Your task to perform on an android device: Open display settings Image 0: 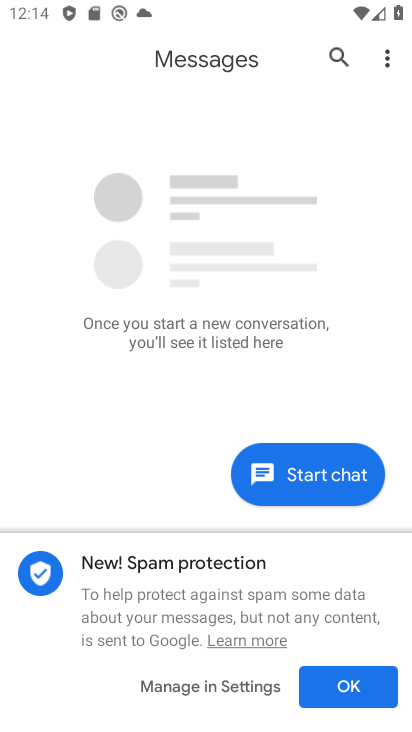
Step 0: press home button
Your task to perform on an android device: Open display settings Image 1: 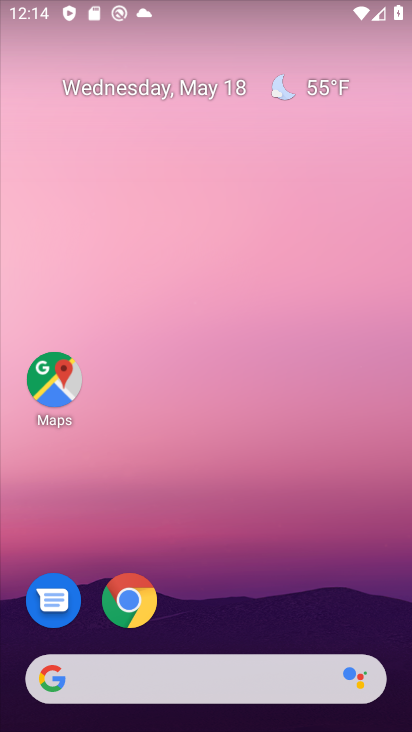
Step 1: drag from (177, 662) to (137, 116)
Your task to perform on an android device: Open display settings Image 2: 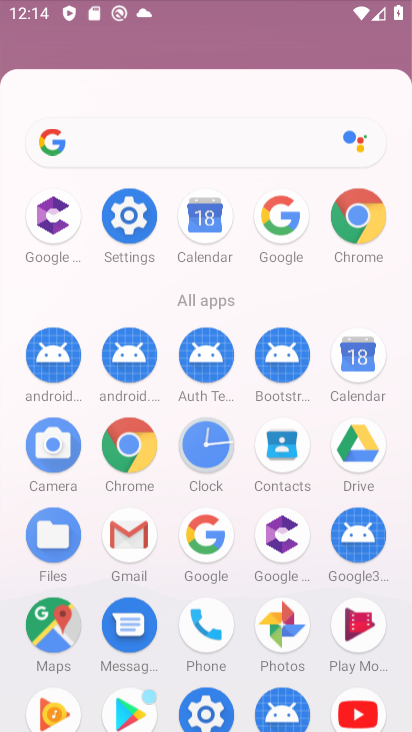
Step 2: click (137, 116)
Your task to perform on an android device: Open display settings Image 3: 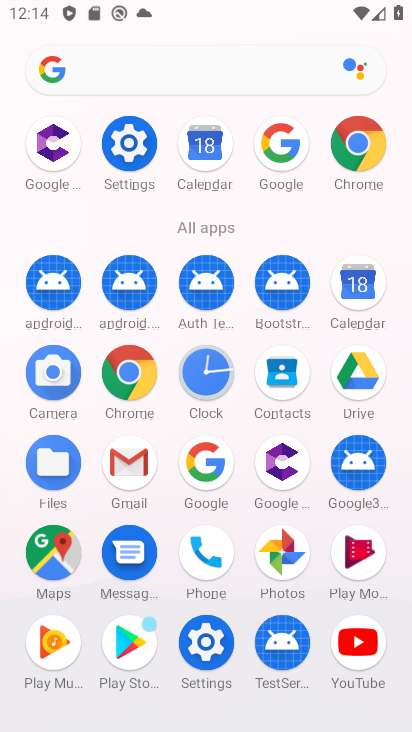
Step 3: click (131, 169)
Your task to perform on an android device: Open display settings Image 4: 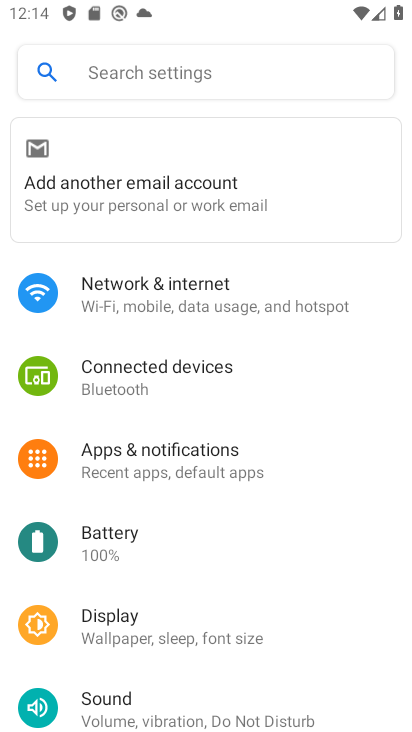
Step 4: click (168, 614)
Your task to perform on an android device: Open display settings Image 5: 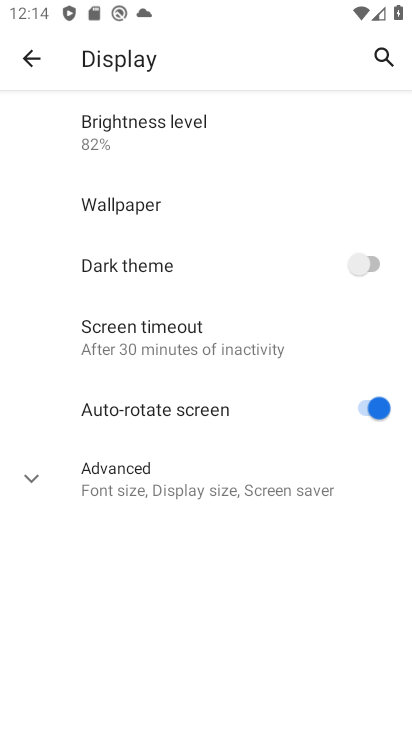
Step 5: task complete